Your task to perform on an android device: open the mobile data screen to see how much data has been used Image 0: 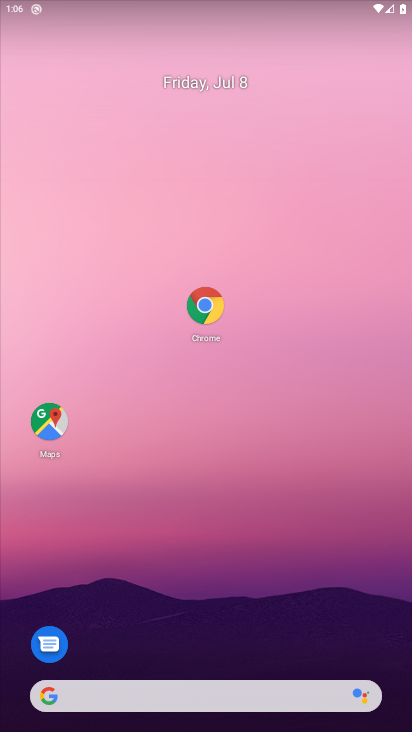
Step 0: drag from (198, 676) to (271, 316)
Your task to perform on an android device: open the mobile data screen to see how much data has been used Image 1: 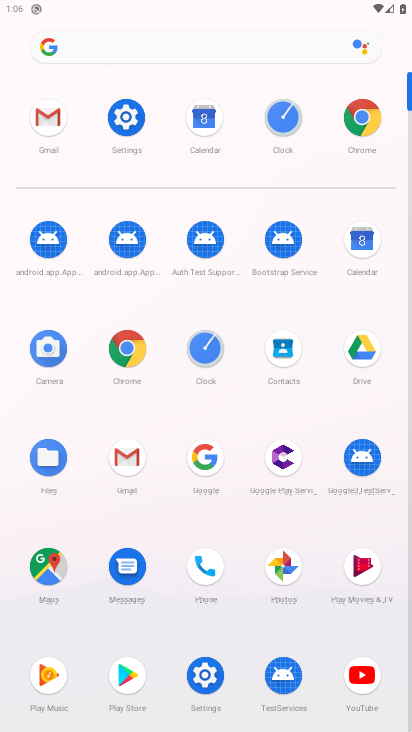
Step 1: click (125, 117)
Your task to perform on an android device: open the mobile data screen to see how much data has been used Image 2: 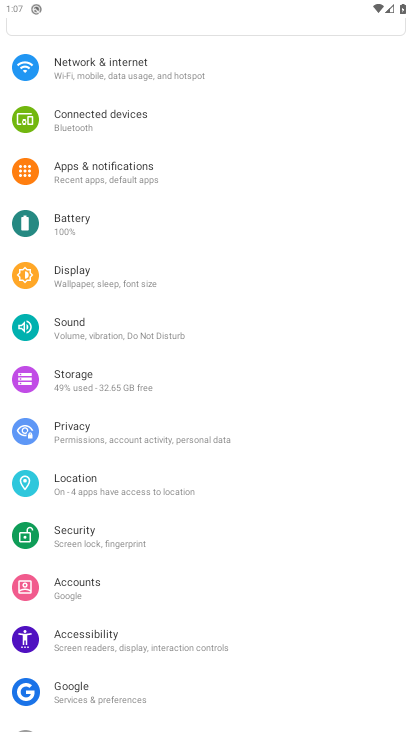
Step 2: click (82, 68)
Your task to perform on an android device: open the mobile data screen to see how much data has been used Image 3: 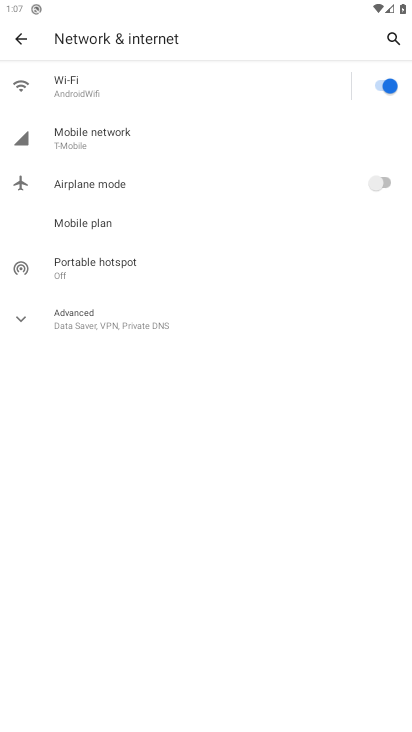
Step 3: click (116, 137)
Your task to perform on an android device: open the mobile data screen to see how much data has been used Image 4: 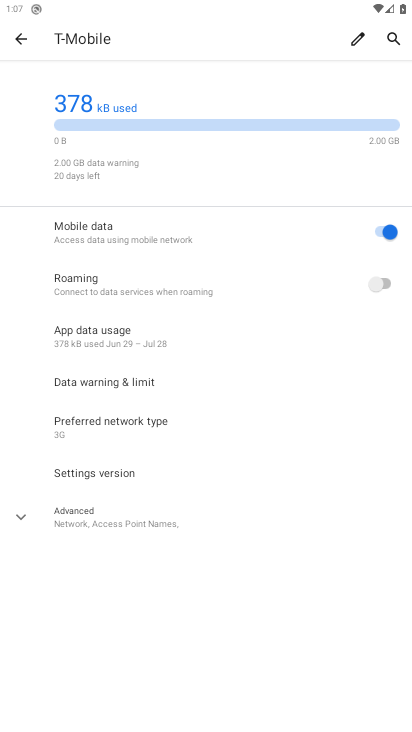
Step 4: task complete